Your task to perform on an android device: What is the capital of France? Image 0: 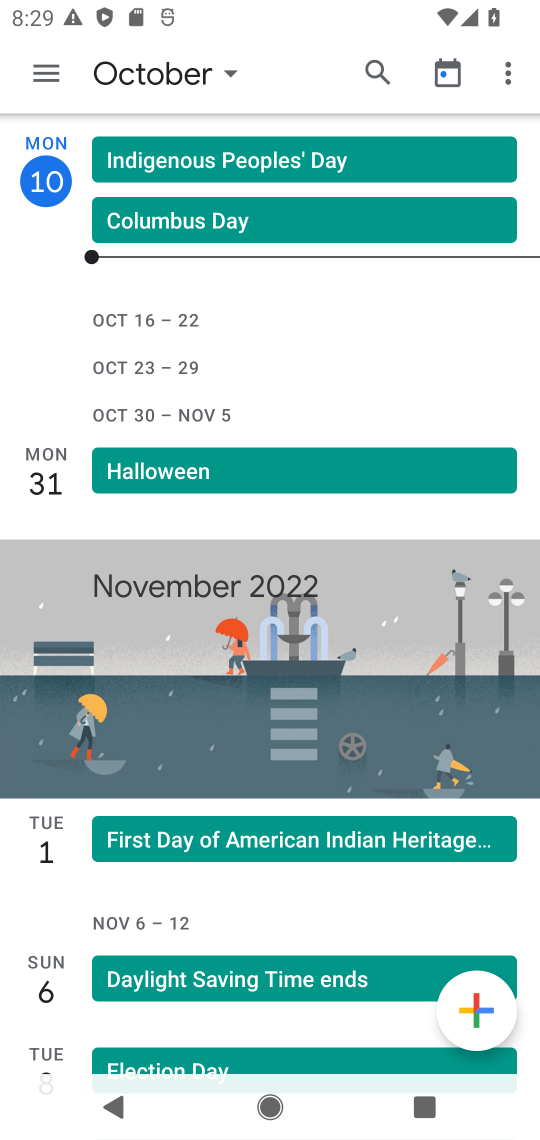
Step 0: drag from (510, 905) to (392, 509)
Your task to perform on an android device: What is the capital of France? Image 1: 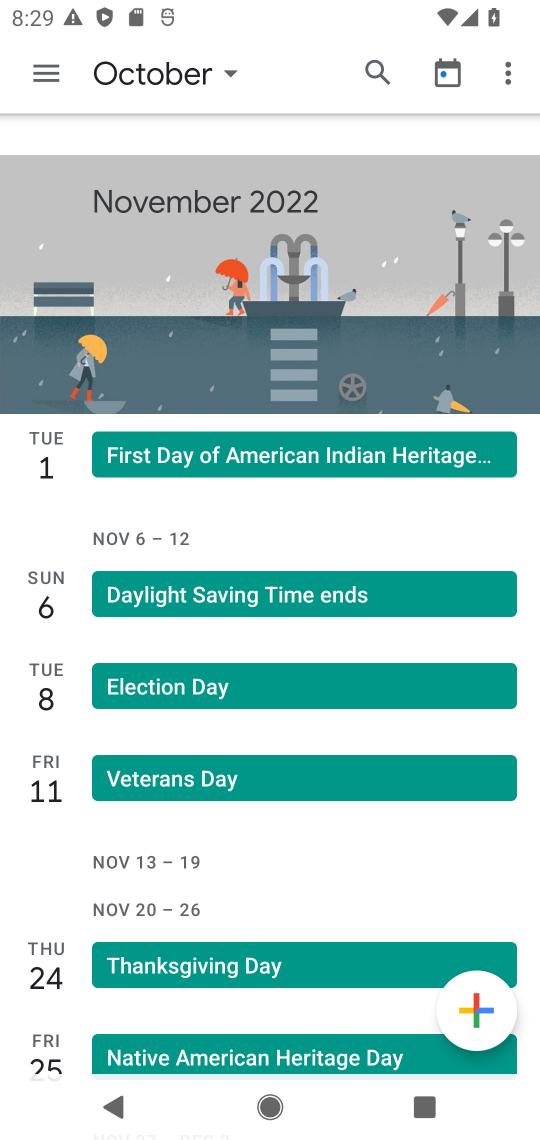
Step 1: press home button
Your task to perform on an android device: What is the capital of France? Image 2: 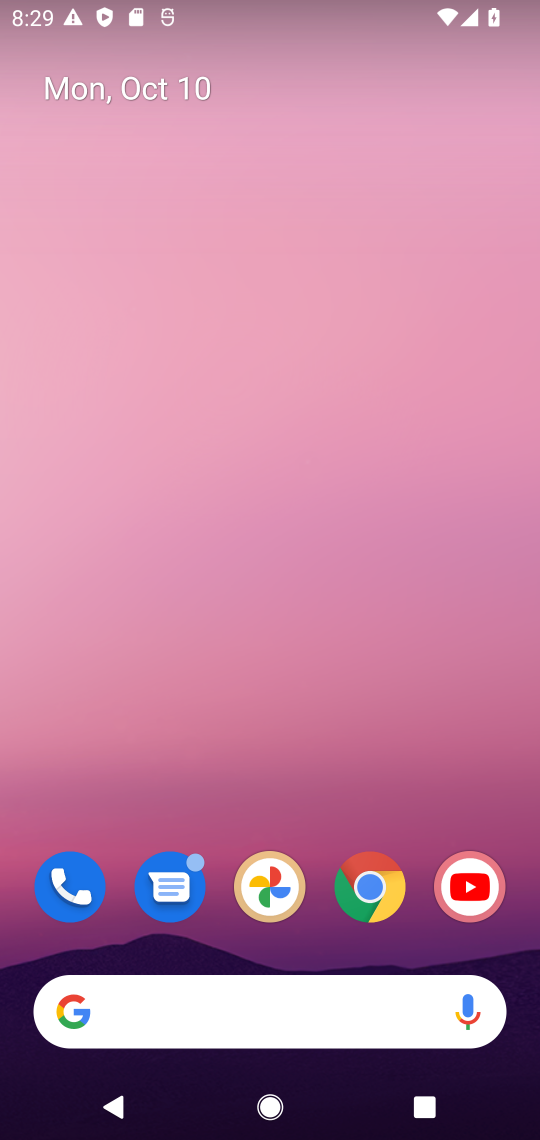
Step 2: click (348, 881)
Your task to perform on an android device: What is the capital of France? Image 3: 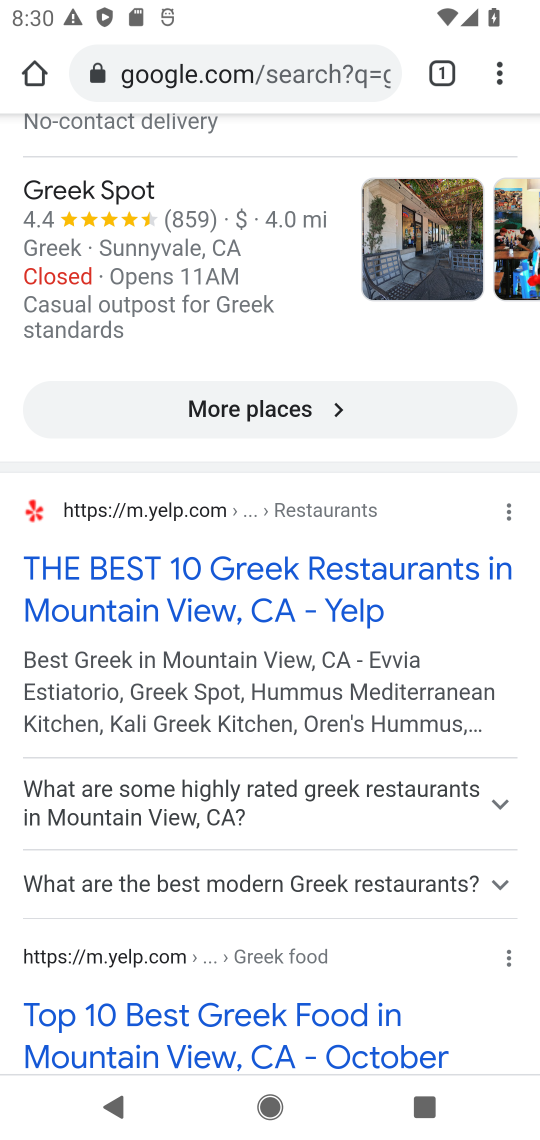
Step 3: click (287, 70)
Your task to perform on an android device: What is the capital of France? Image 4: 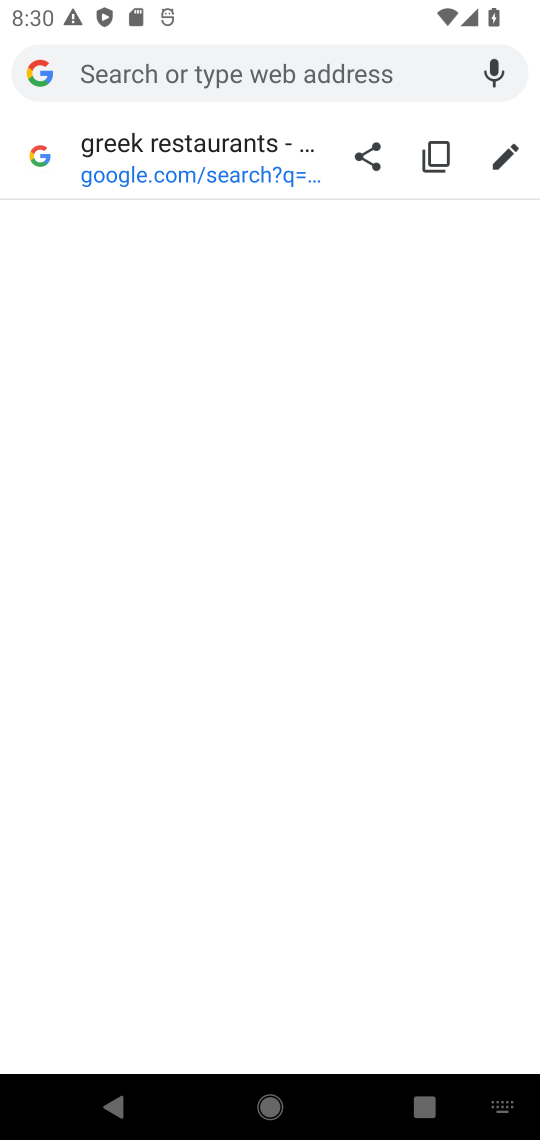
Step 4: type "france capital"
Your task to perform on an android device: What is the capital of France? Image 5: 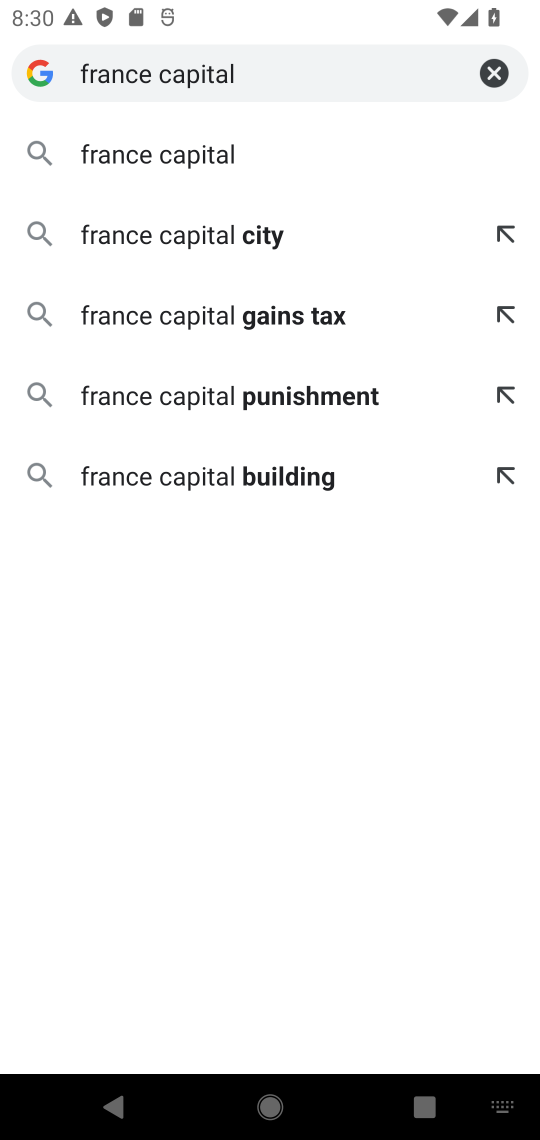
Step 5: click (248, 158)
Your task to perform on an android device: What is the capital of France? Image 6: 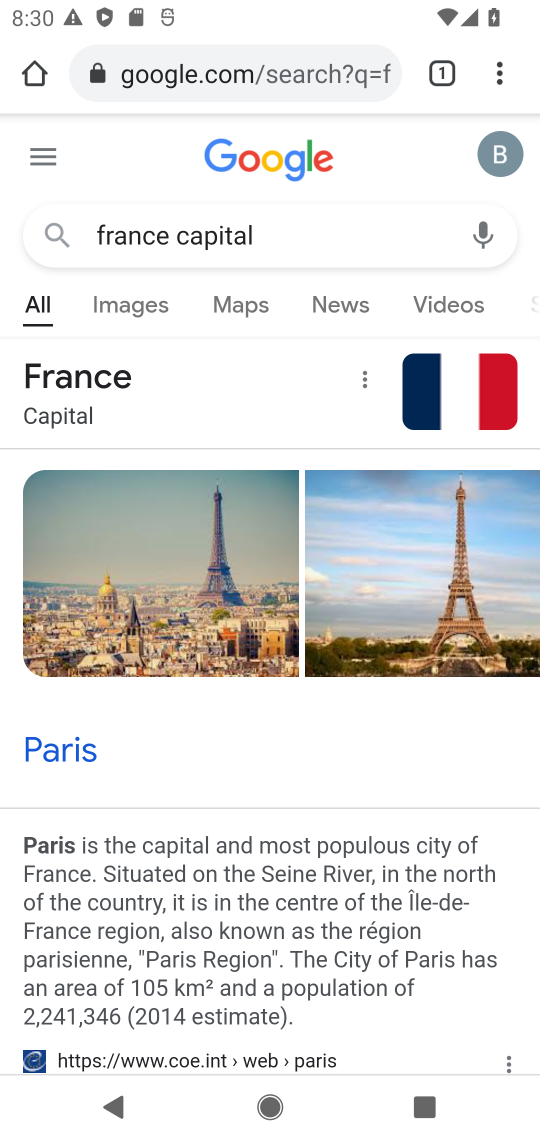
Step 6: task complete